Your task to perform on an android device: Do I have any events today? Image 0: 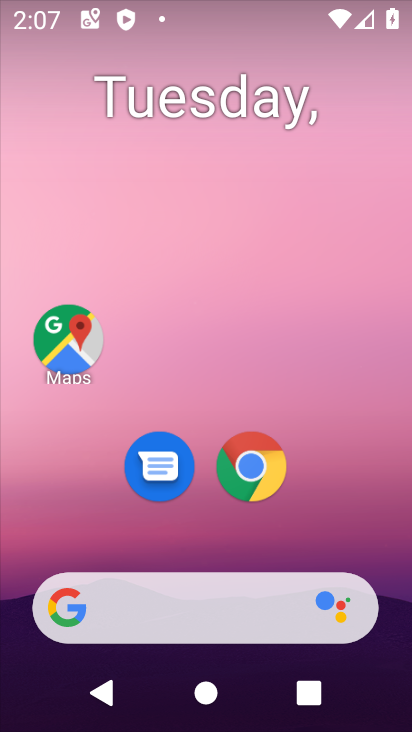
Step 0: task complete